Your task to perform on an android device: Check the weather Image 0: 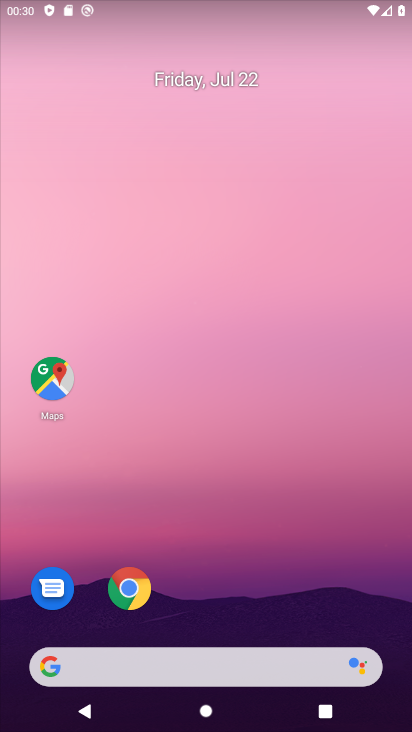
Step 0: click (164, 658)
Your task to perform on an android device: Check the weather Image 1: 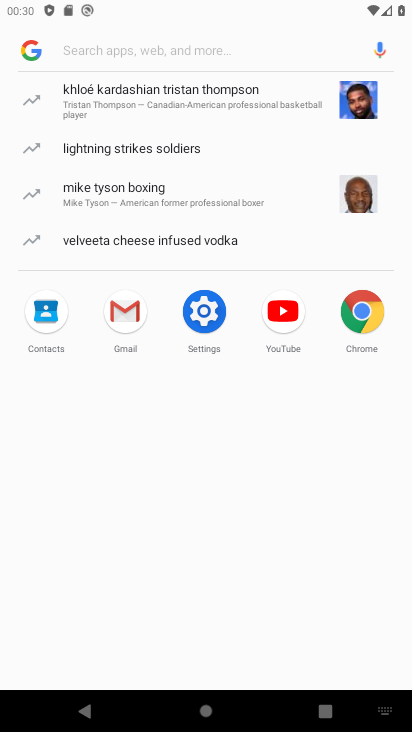
Step 1: click (117, 54)
Your task to perform on an android device: Check the weather Image 2: 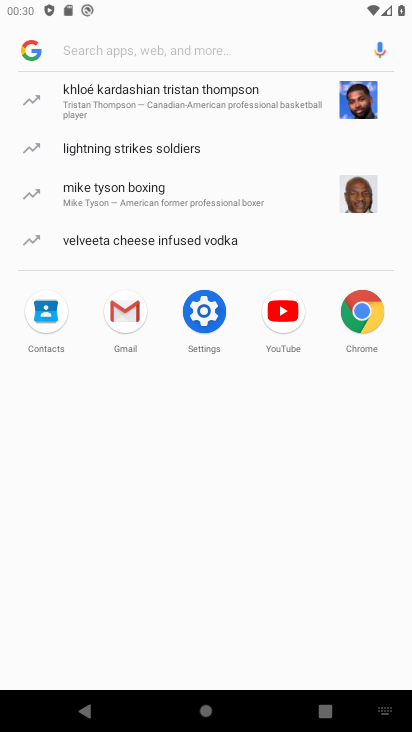
Step 2: type "weather"
Your task to perform on an android device: Check the weather Image 3: 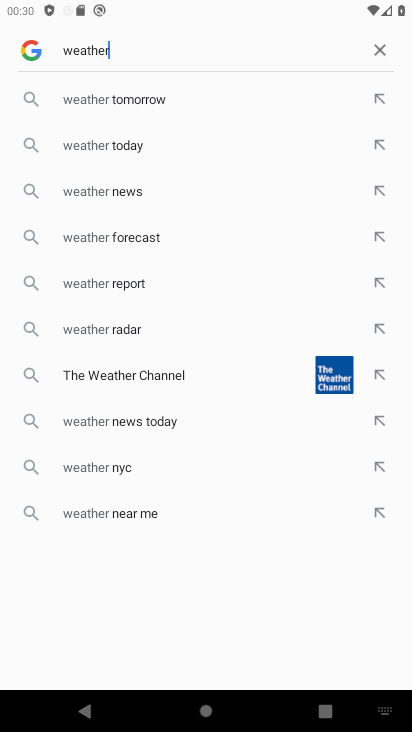
Step 3: click (123, 141)
Your task to perform on an android device: Check the weather Image 4: 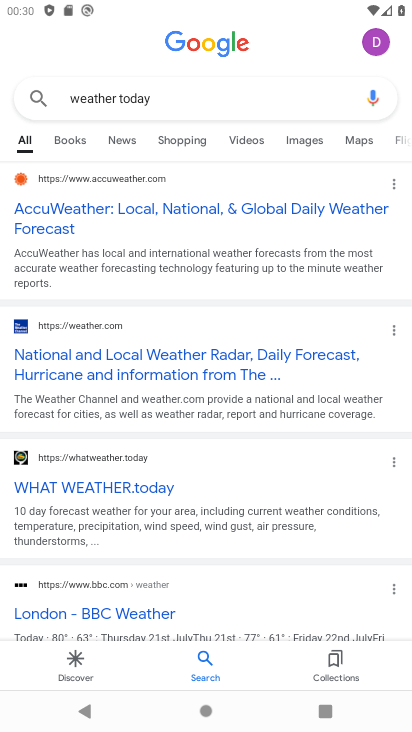
Step 4: click (184, 209)
Your task to perform on an android device: Check the weather Image 5: 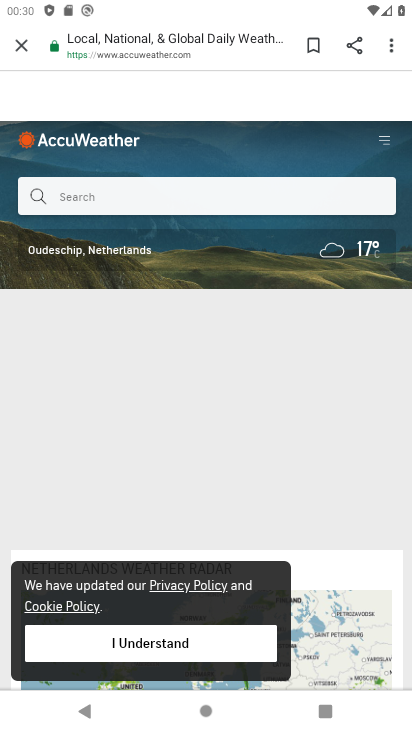
Step 5: task complete